Your task to perform on an android device: Open the calendar app, open the side menu, and click the "Day" option Image 0: 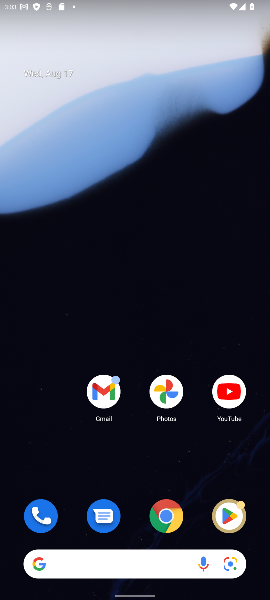
Step 0: drag from (126, 566) to (142, 185)
Your task to perform on an android device: Open the calendar app, open the side menu, and click the "Day" option Image 1: 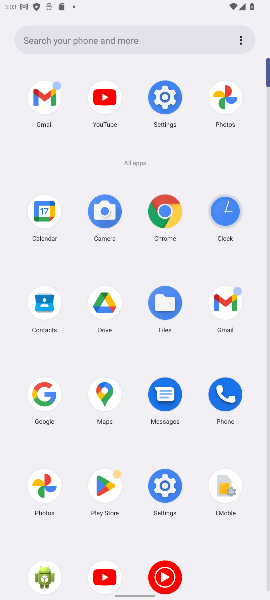
Step 1: click (42, 209)
Your task to perform on an android device: Open the calendar app, open the side menu, and click the "Day" option Image 2: 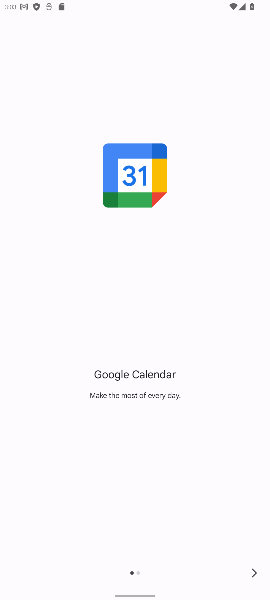
Step 2: click (252, 571)
Your task to perform on an android device: Open the calendar app, open the side menu, and click the "Day" option Image 3: 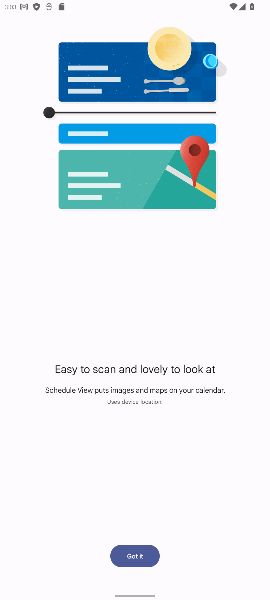
Step 3: click (136, 556)
Your task to perform on an android device: Open the calendar app, open the side menu, and click the "Day" option Image 4: 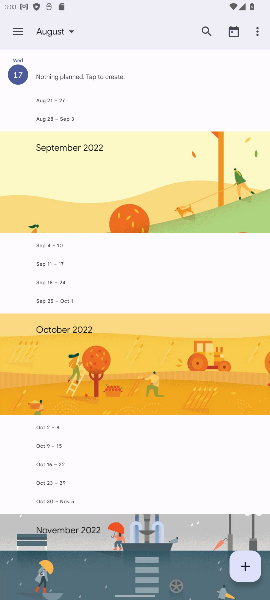
Step 4: click (18, 32)
Your task to perform on an android device: Open the calendar app, open the side menu, and click the "Day" option Image 5: 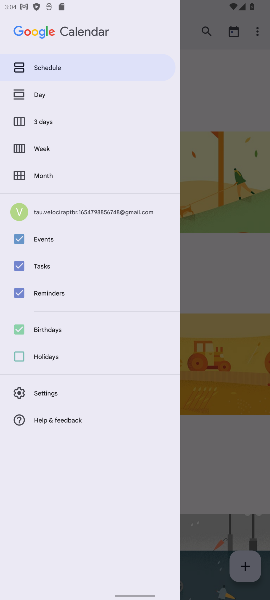
Step 5: click (43, 97)
Your task to perform on an android device: Open the calendar app, open the side menu, and click the "Day" option Image 6: 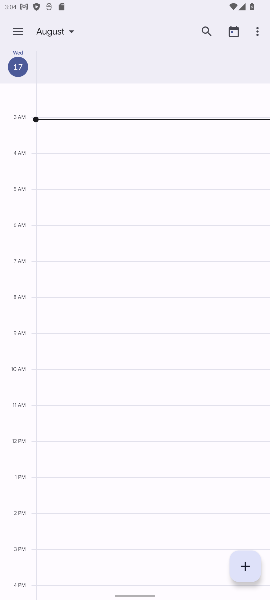
Step 6: task complete